Your task to perform on an android device: Search for corsair k70 on target.com, select the first entry, and add it to the cart. Image 0: 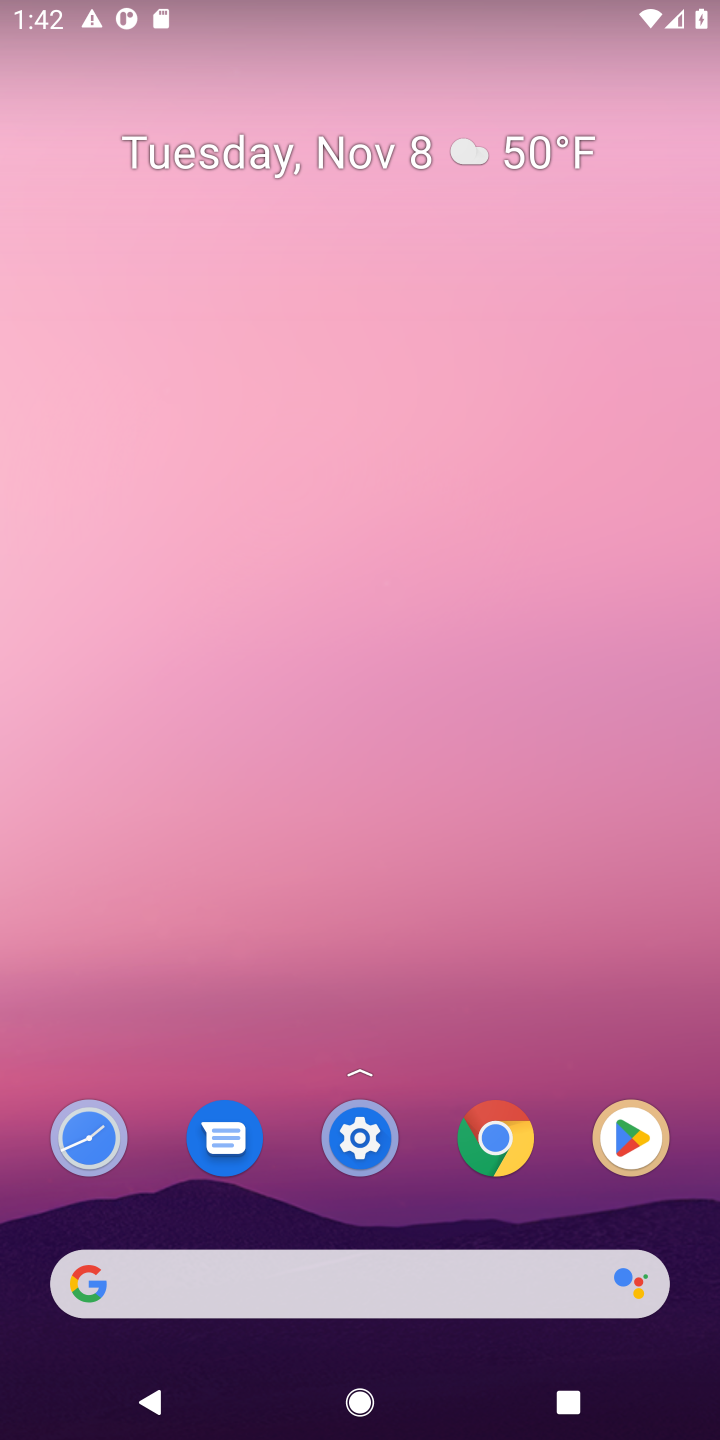
Step 0: click (255, 1255)
Your task to perform on an android device: Search for corsair k70 on target.com, select the first entry, and add it to the cart. Image 1: 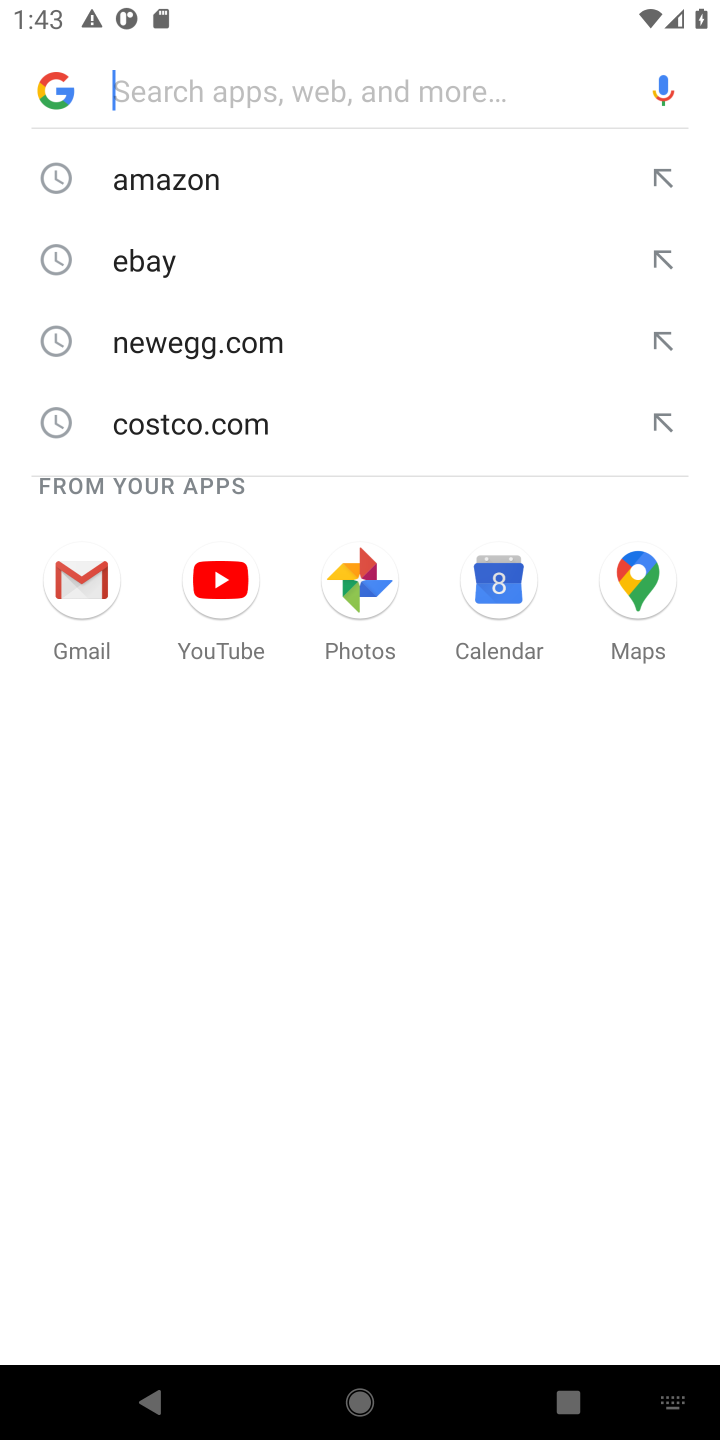
Step 1: type "target.com"
Your task to perform on an android device: Search for corsair k70 on target.com, select the first entry, and add it to the cart. Image 2: 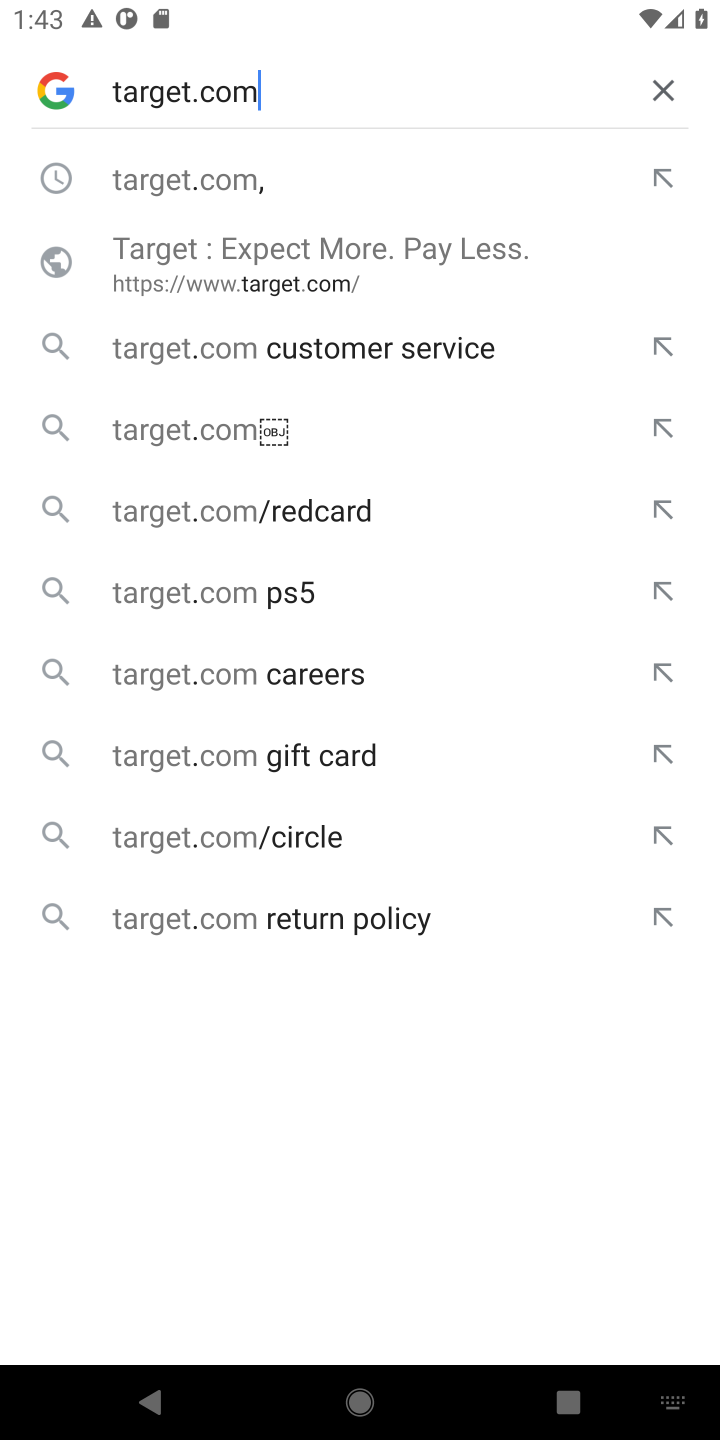
Step 2: click (278, 160)
Your task to perform on an android device: Search for corsair k70 on target.com, select the first entry, and add it to the cart. Image 3: 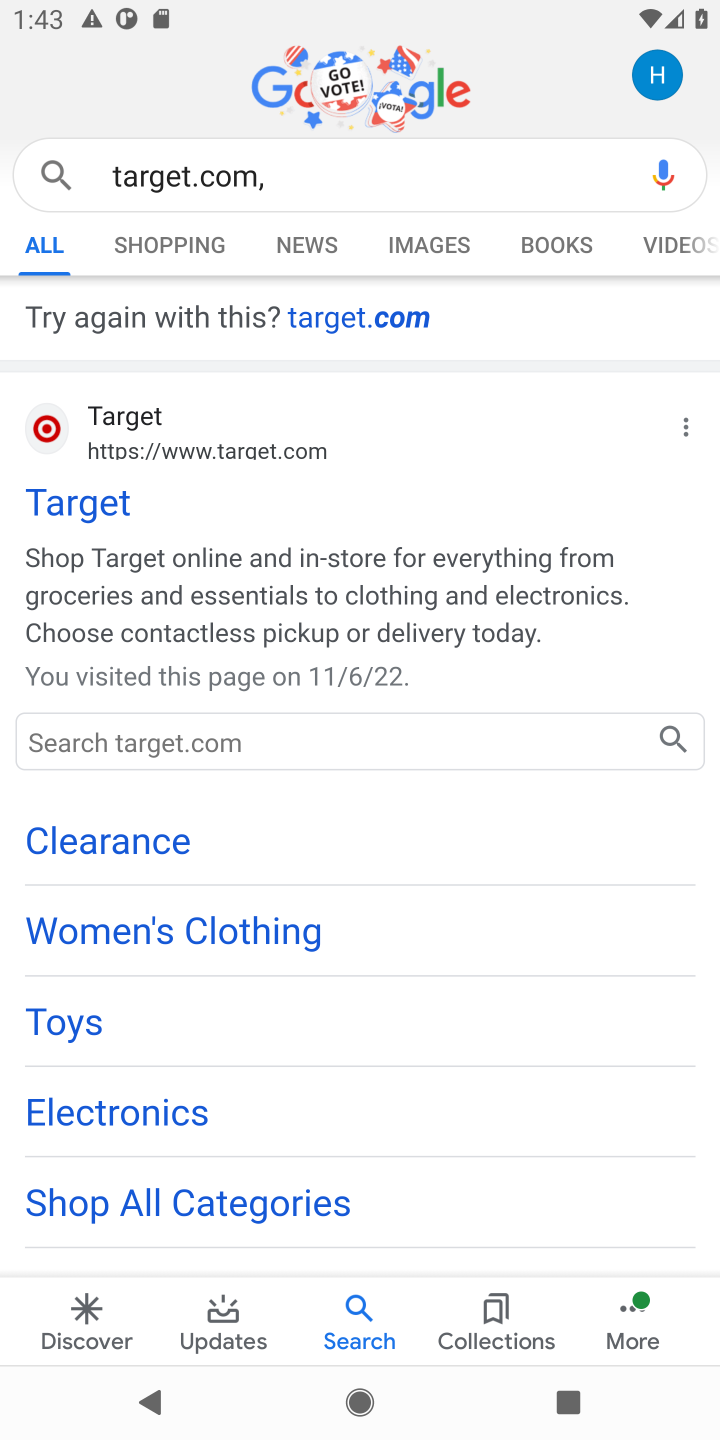
Step 3: click (128, 422)
Your task to perform on an android device: Search for corsair k70 on target.com, select the first entry, and add it to the cart. Image 4: 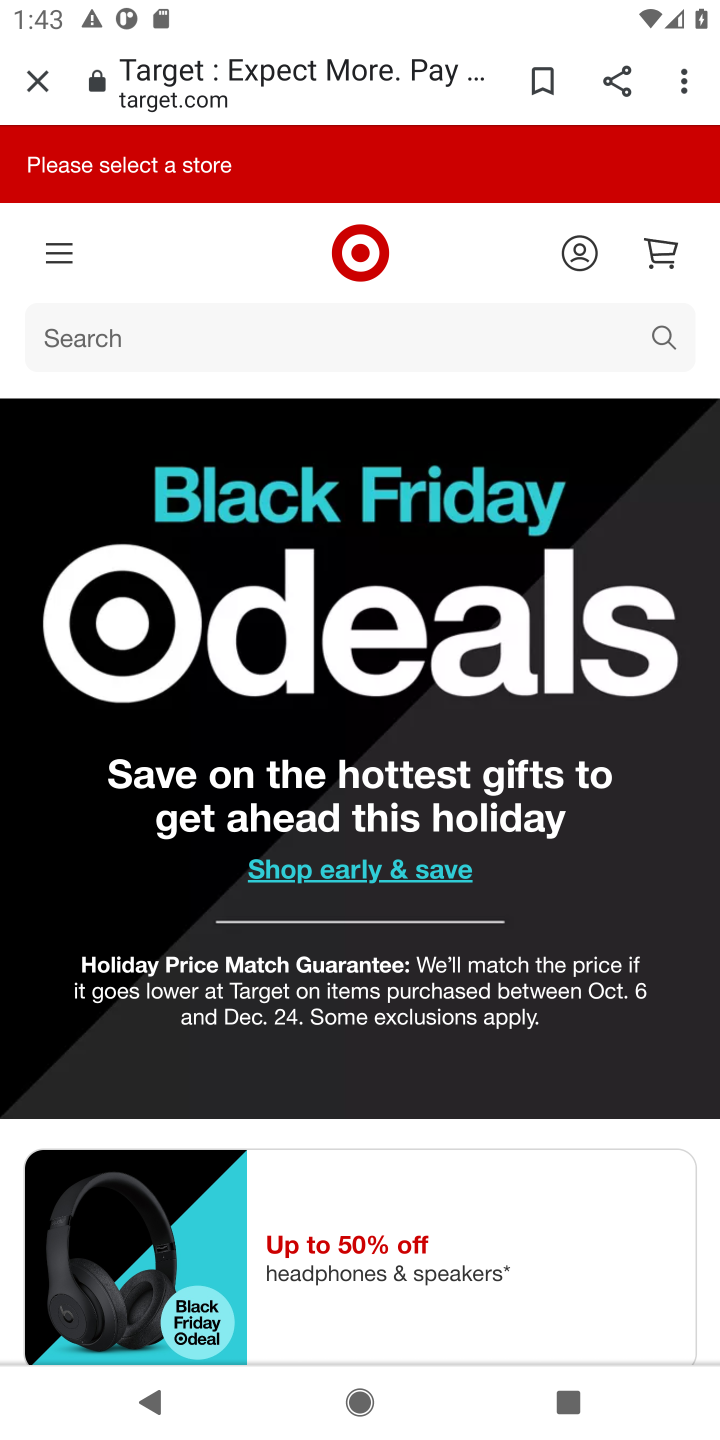
Step 4: task complete